Your task to perform on an android device: Open battery settings Image 0: 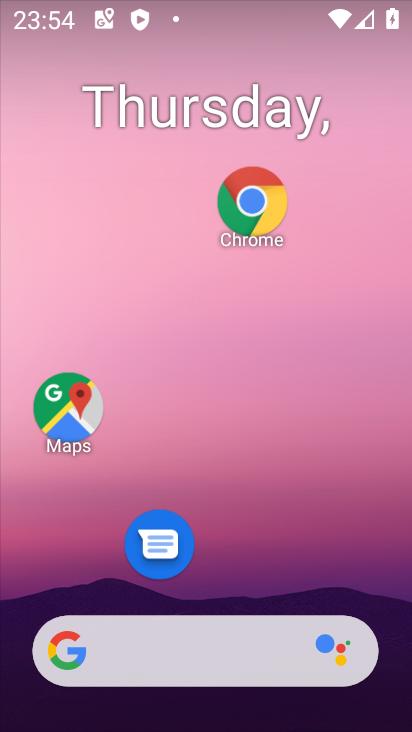
Step 0: drag from (226, 551) to (224, 37)
Your task to perform on an android device: Open battery settings Image 1: 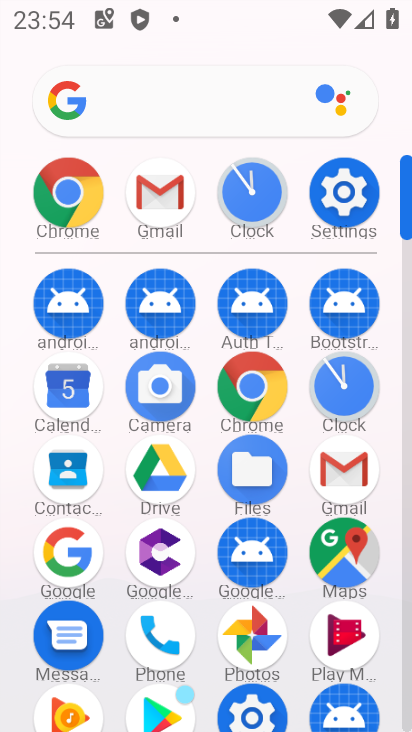
Step 1: click (338, 198)
Your task to perform on an android device: Open battery settings Image 2: 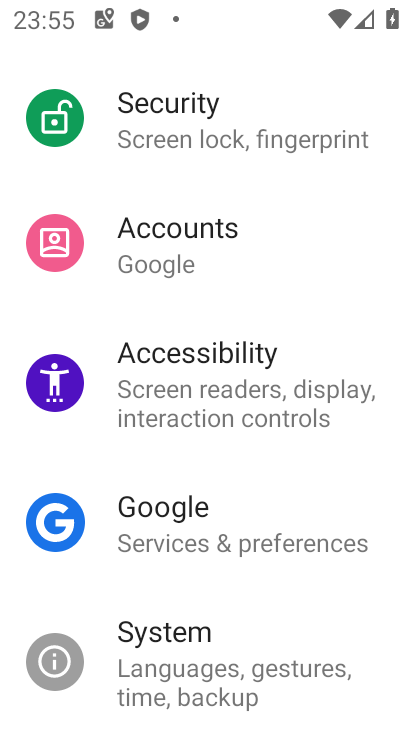
Step 2: drag from (177, 175) to (152, 729)
Your task to perform on an android device: Open battery settings Image 3: 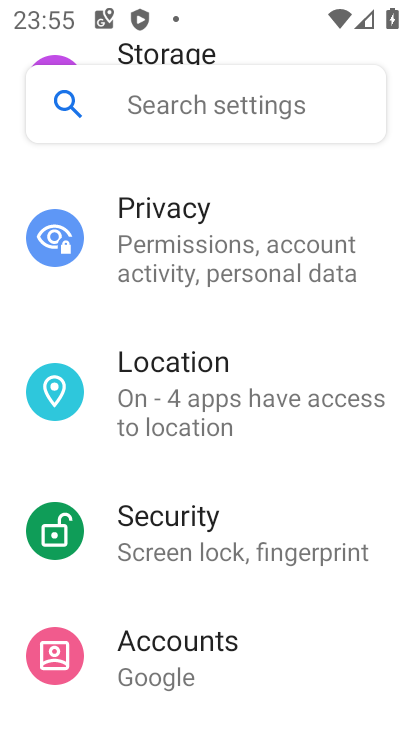
Step 3: drag from (195, 196) to (196, 689)
Your task to perform on an android device: Open battery settings Image 4: 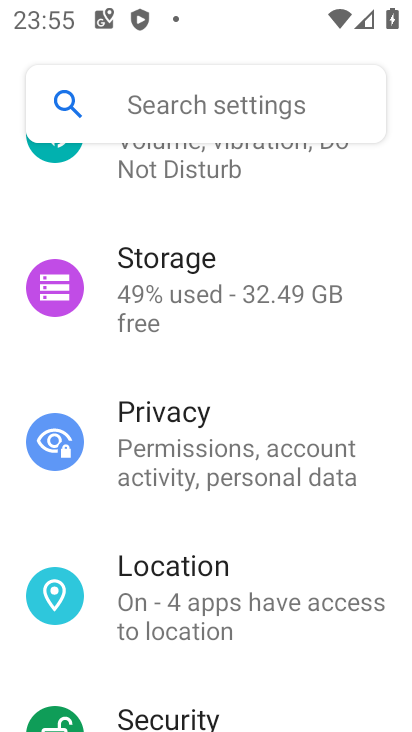
Step 4: drag from (170, 196) to (268, 726)
Your task to perform on an android device: Open battery settings Image 5: 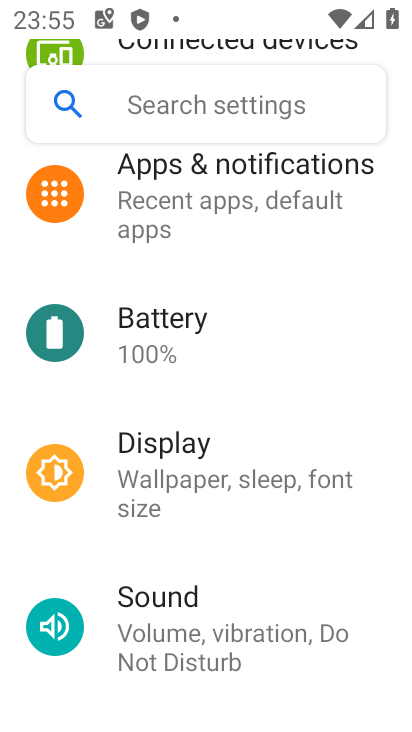
Step 5: click (159, 333)
Your task to perform on an android device: Open battery settings Image 6: 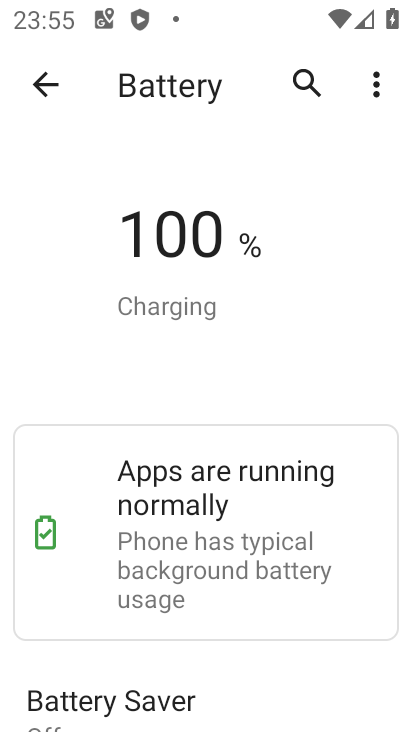
Step 6: task complete